Your task to perform on an android device: stop showing notifications on the lock screen Image 0: 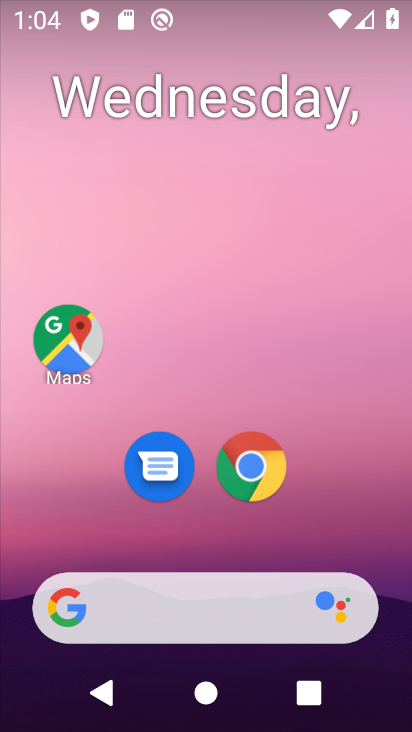
Step 0: drag from (299, 512) to (261, 120)
Your task to perform on an android device: stop showing notifications on the lock screen Image 1: 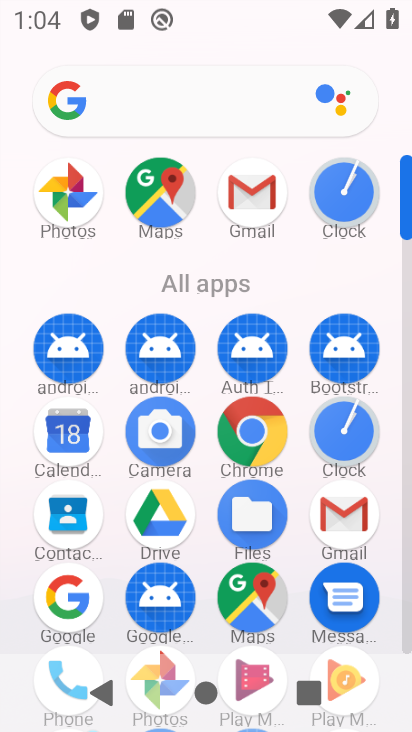
Step 1: drag from (233, 529) to (213, 134)
Your task to perform on an android device: stop showing notifications on the lock screen Image 2: 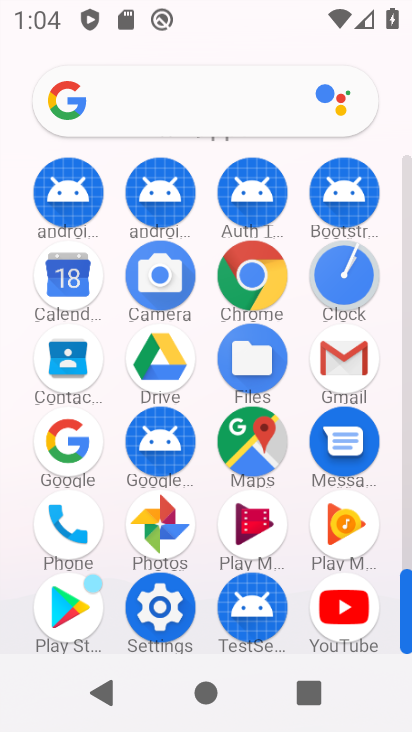
Step 2: click (172, 601)
Your task to perform on an android device: stop showing notifications on the lock screen Image 3: 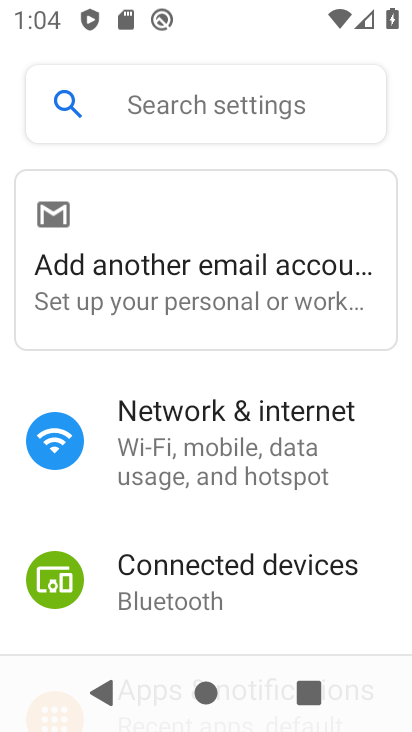
Step 3: drag from (223, 593) to (305, 297)
Your task to perform on an android device: stop showing notifications on the lock screen Image 4: 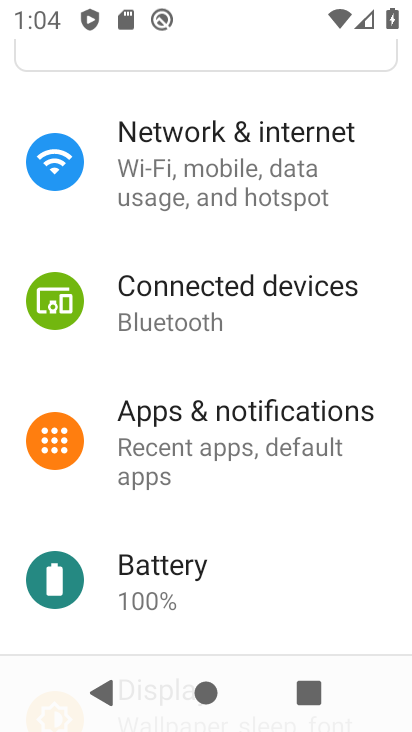
Step 4: click (256, 448)
Your task to perform on an android device: stop showing notifications on the lock screen Image 5: 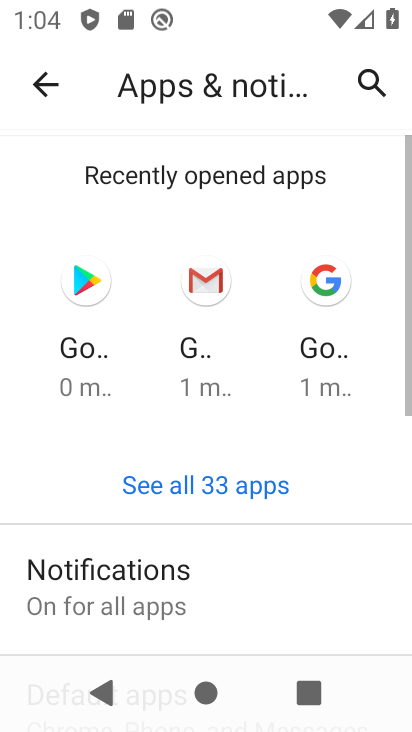
Step 5: drag from (241, 615) to (263, 407)
Your task to perform on an android device: stop showing notifications on the lock screen Image 6: 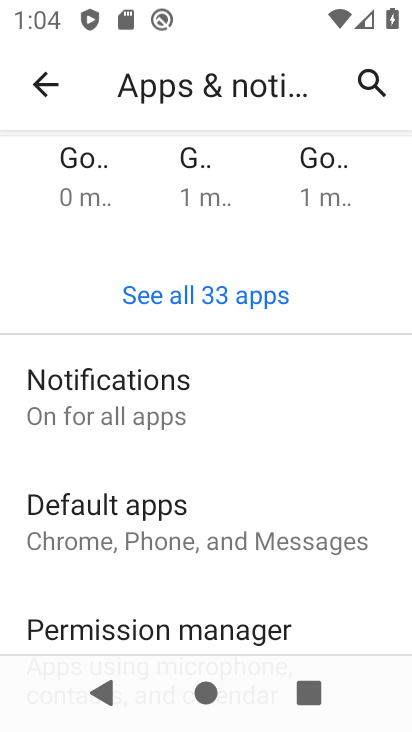
Step 6: click (228, 401)
Your task to perform on an android device: stop showing notifications on the lock screen Image 7: 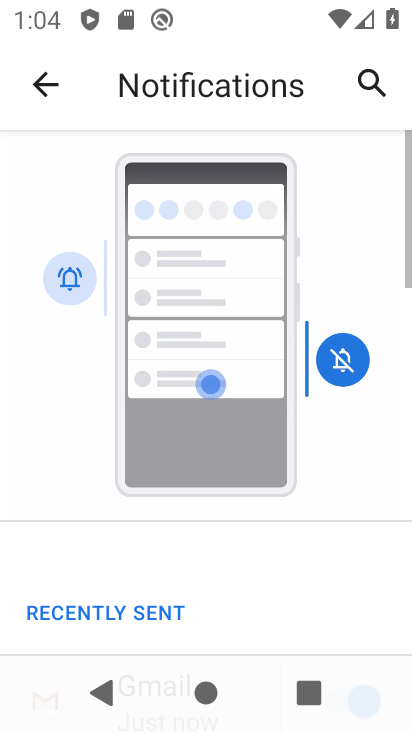
Step 7: drag from (277, 572) to (318, 217)
Your task to perform on an android device: stop showing notifications on the lock screen Image 8: 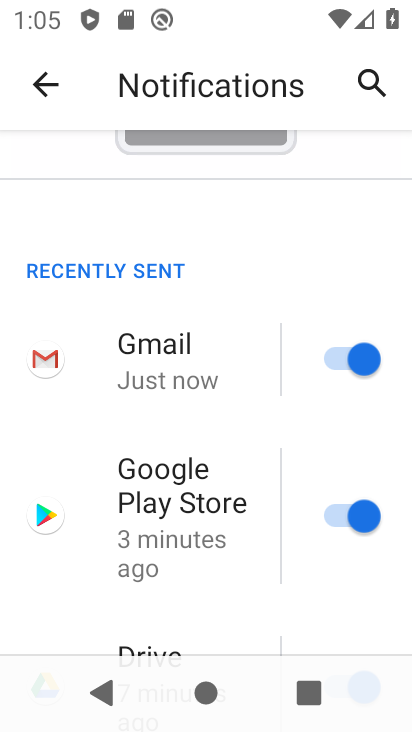
Step 8: drag from (323, 547) to (361, 243)
Your task to perform on an android device: stop showing notifications on the lock screen Image 9: 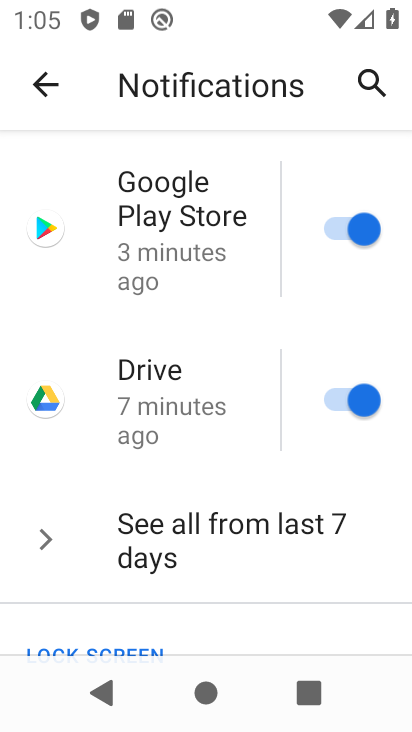
Step 9: drag from (255, 508) to (264, 276)
Your task to perform on an android device: stop showing notifications on the lock screen Image 10: 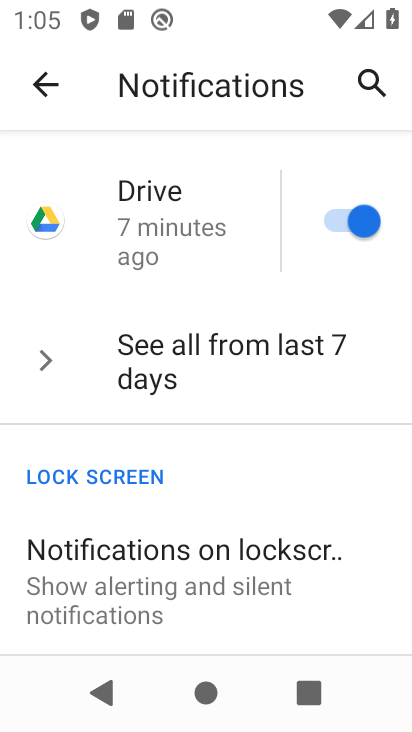
Step 10: drag from (235, 579) to (248, 366)
Your task to perform on an android device: stop showing notifications on the lock screen Image 11: 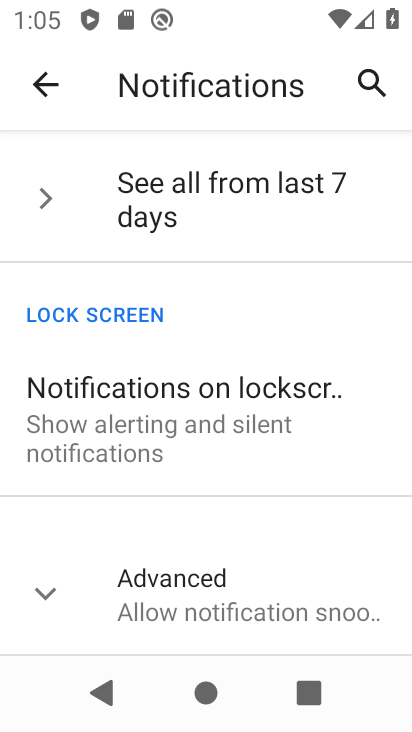
Step 11: click (230, 425)
Your task to perform on an android device: stop showing notifications on the lock screen Image 12: 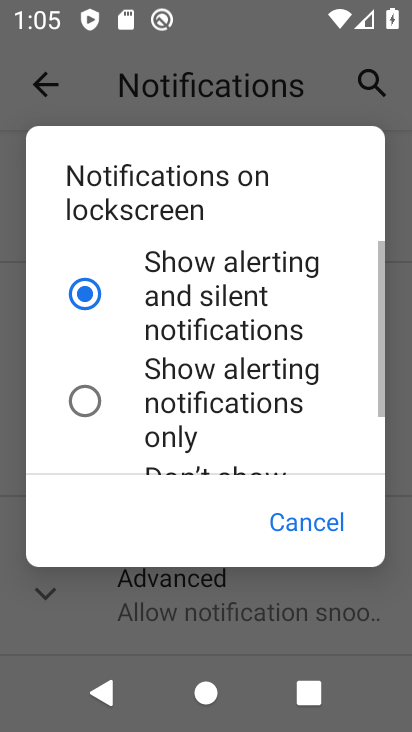
Step 12: drag from (225, 426) to (306, 255)
Your task to perform on an android device: stop showing notifications on the lock screen Image 13: 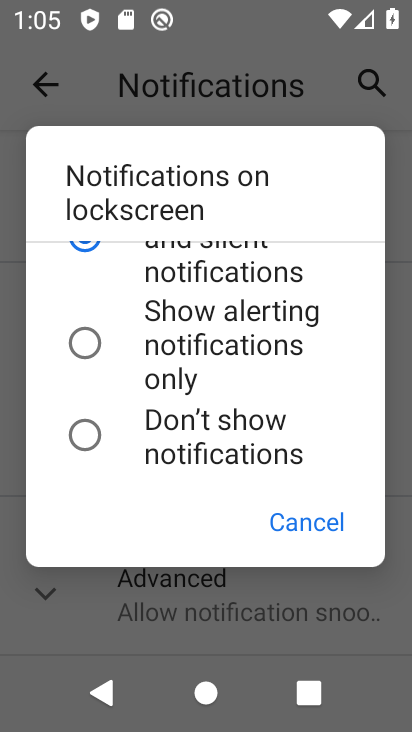
Step 13: click (148, 462)
Your task to perform on an android device: stop showing notifications on the lock screen Image 14: 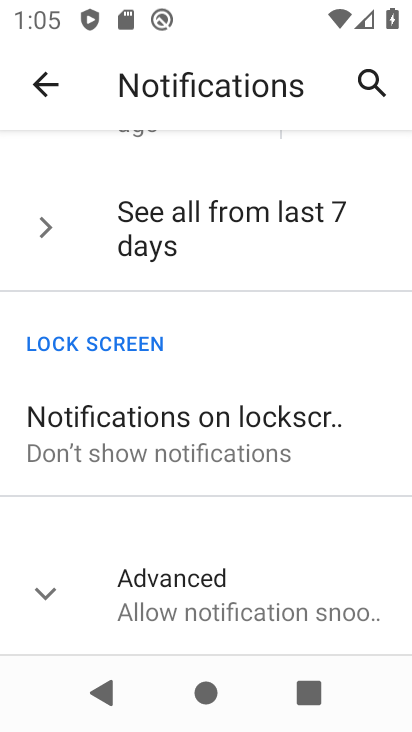
Step 14: task complete